Your task to perform on an android device: Open Yahoo.com Image 0: 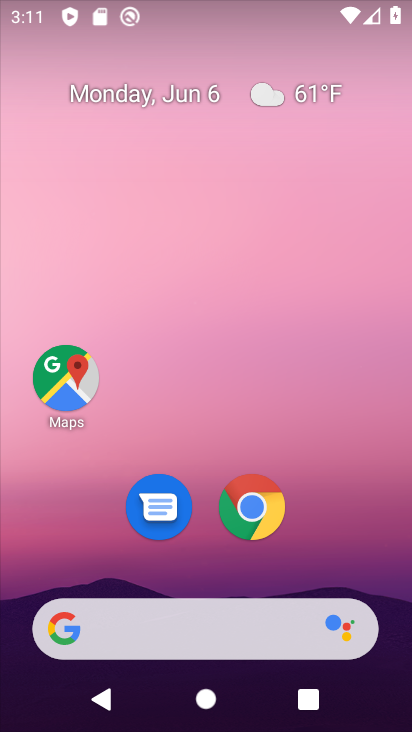
Step 0: click (249, 528)
Your task to perform on an android device: Open Yahoo.com Image 1: 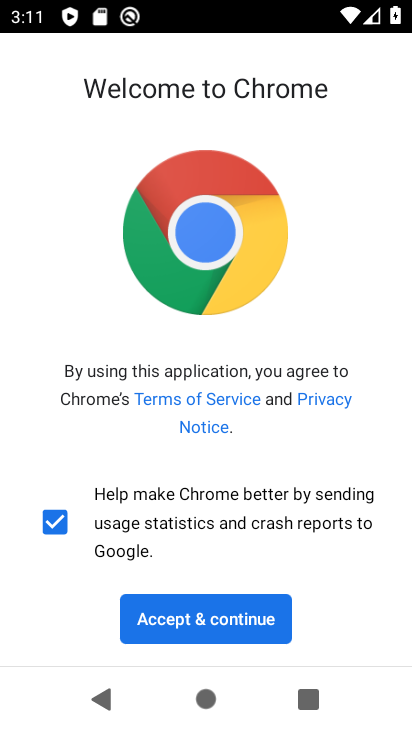
Step 1: click (244, 605)
Your task to perform on an android device: Open Yahoo.com Image 2: 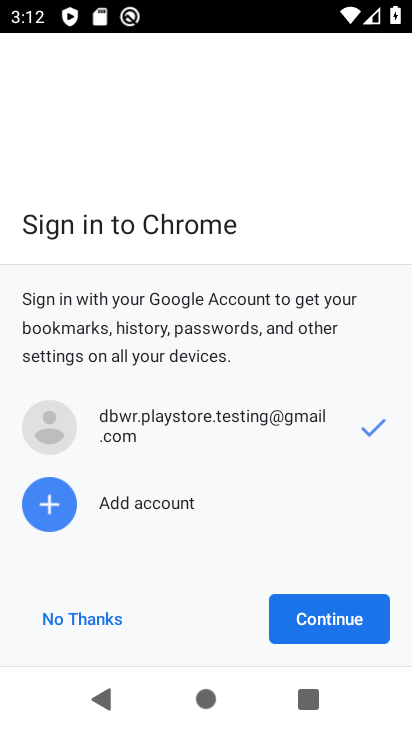
Step 2: click (284, 607)
Your task to perform on an android device: Open Yahoo.com Image 3: 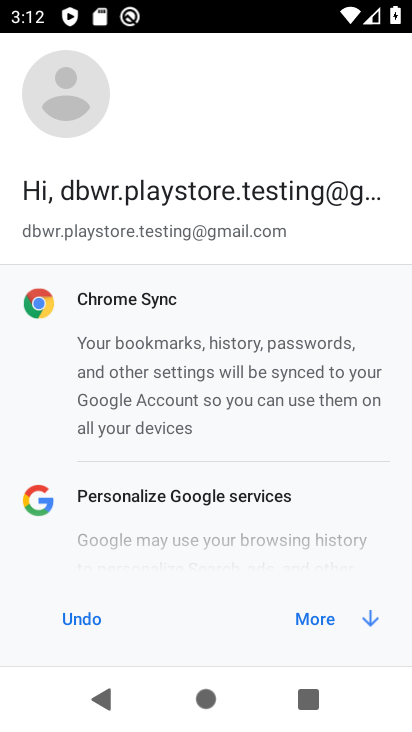
Step 3: click (284, 607)
Your task to perform on an android device: Open Yahoo.com Image 4: 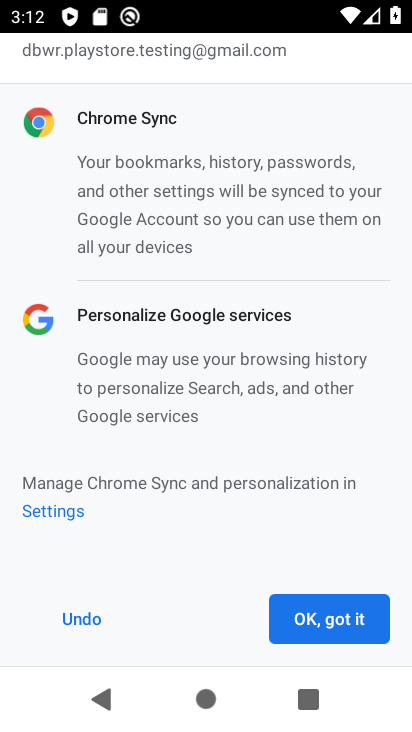
Step 4: click (284, 607)
Your task to perform on an android device: Open Yahoo.com Image 5: 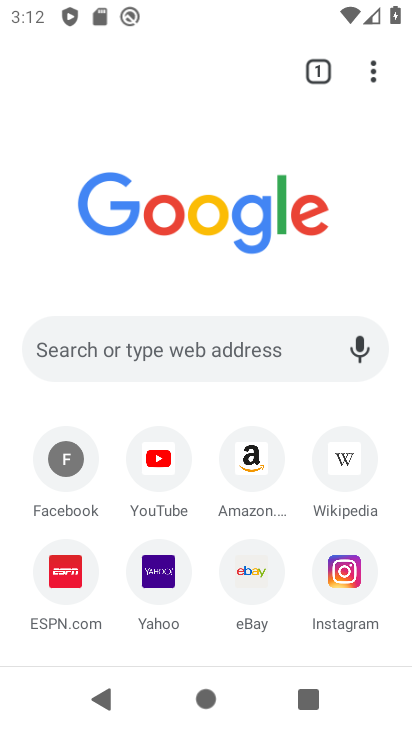
Step 5: click (154, 579)
Your task to perform on an android device: Open Yahoo.com Image 6: 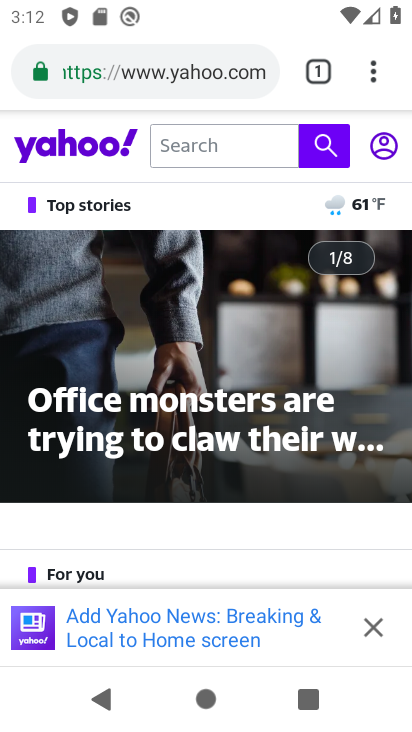
Step 6: task complete